Your task to perform on an android device: toggle javascript in the chrome app Image 0: 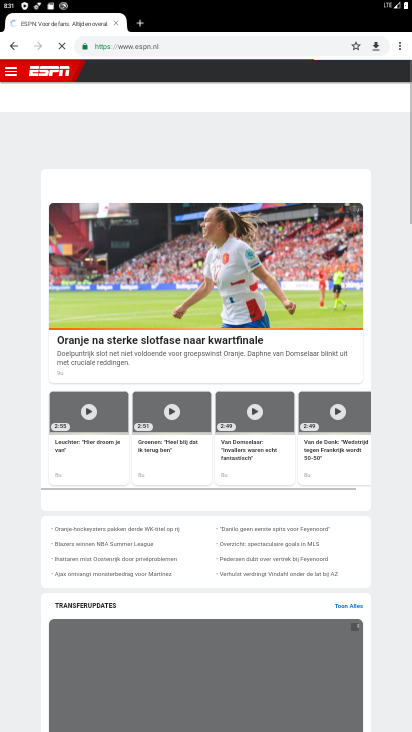
Step 0: press home button
Your task to perform on an android device: toggle javascript in the chrome app Image 1: 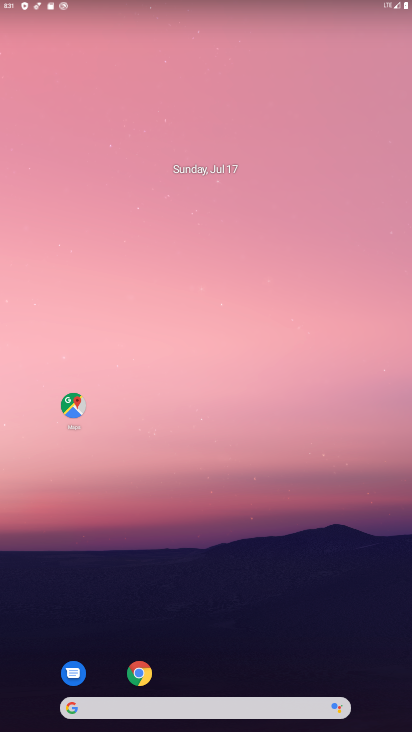
Step 1: click (142, 673)
Your task to perform on an android device: toggle javascript in the chrome app Image 2: 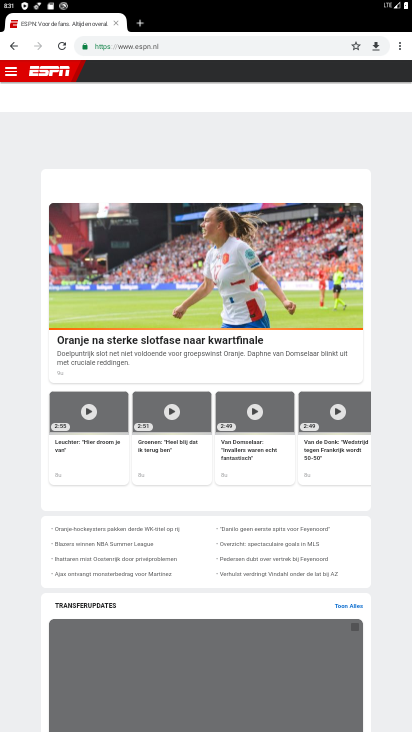
Step 2: click (404, 46)
Your task to perform on an android device: toggle javascript in the chrome app Image 3: 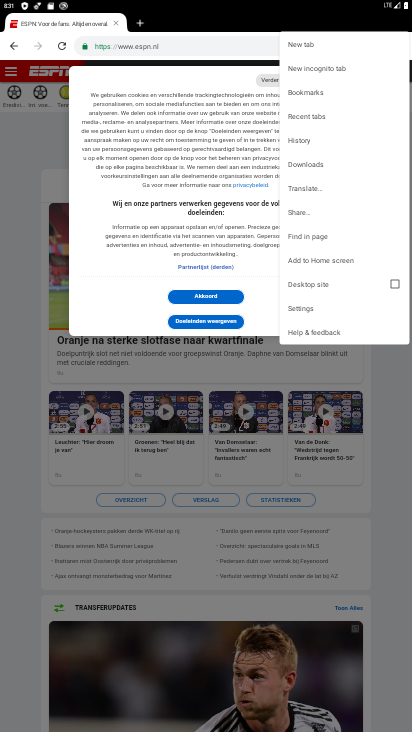
Step 3: click (301, 306)
Your task to perform on an android device: toggle javascript in the chrome app Image 4: 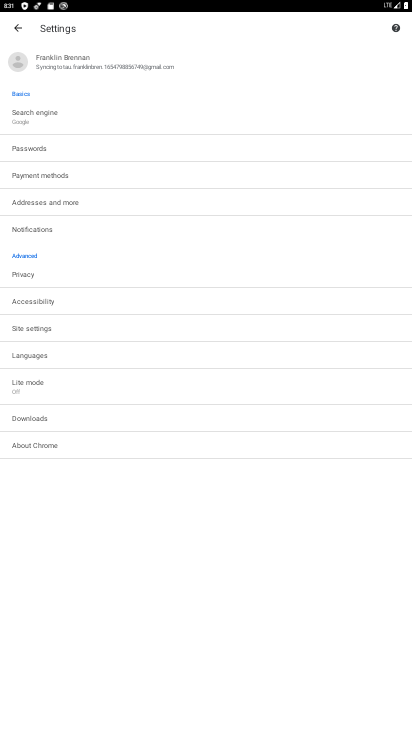
Step 4: click (30, 327)
Your task to perform on an android device: toggle javascript in the chrome app Image 5: 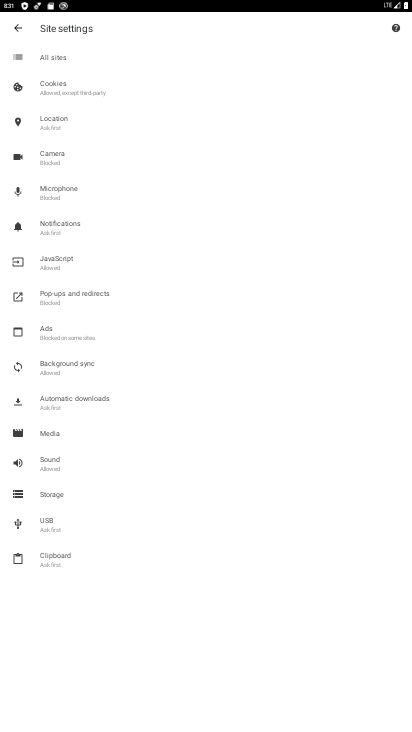
Step 5: click (66, 263)
Your task to perform on an android device: toggle javascript in the chrome app Image 6: 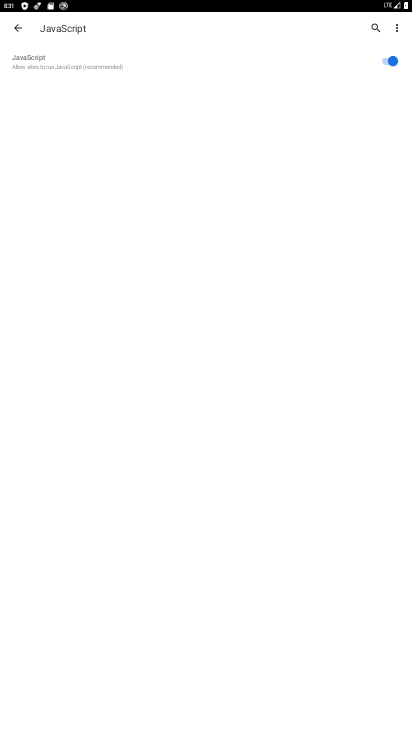
Step 6: click (390, 55)
Your task to perform on an android device: toggle javascript in the chrome app Image 7: 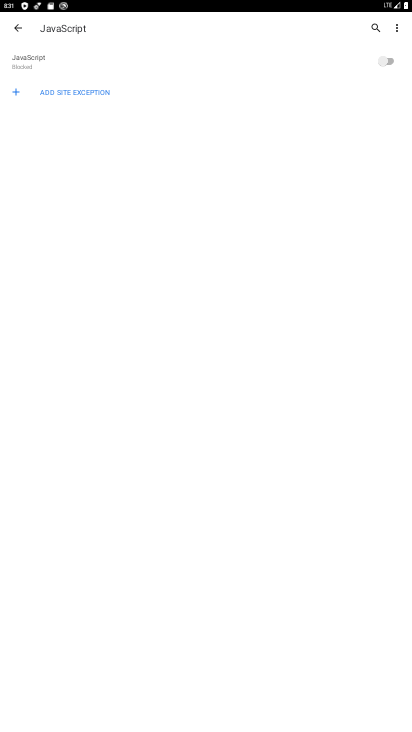
Step 7: task complete